Your task to perform on an android device: turn on sleep mode Image 0: 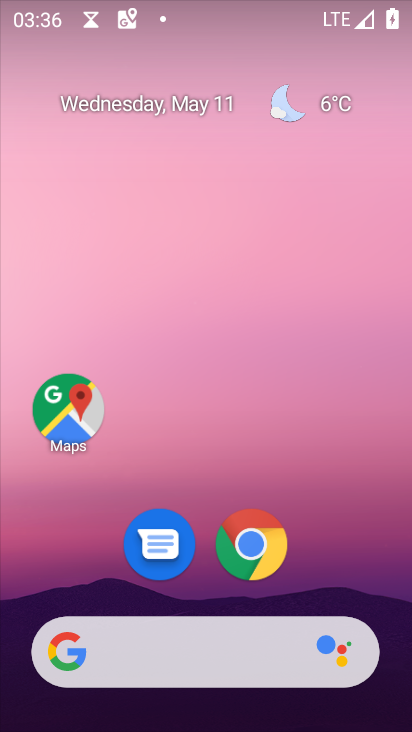
Step 0: drag from (330, 550) to (302, 64)
Your task to perform on an android device: turn on sleep mode Image 1: 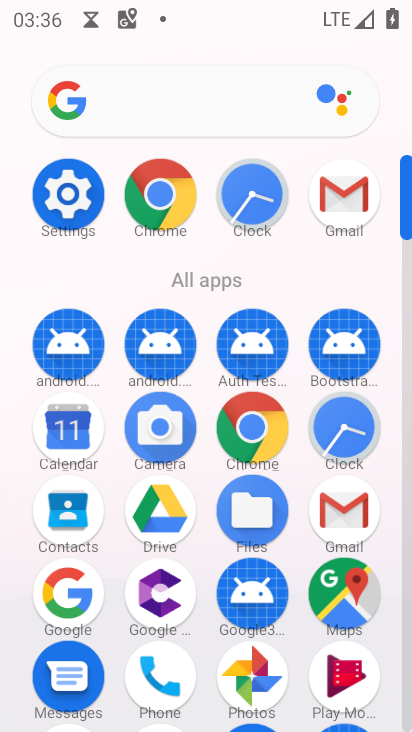
Step 1: click (72, 198)
Your task to perform on an android device: turn on sleep mode Image 2: 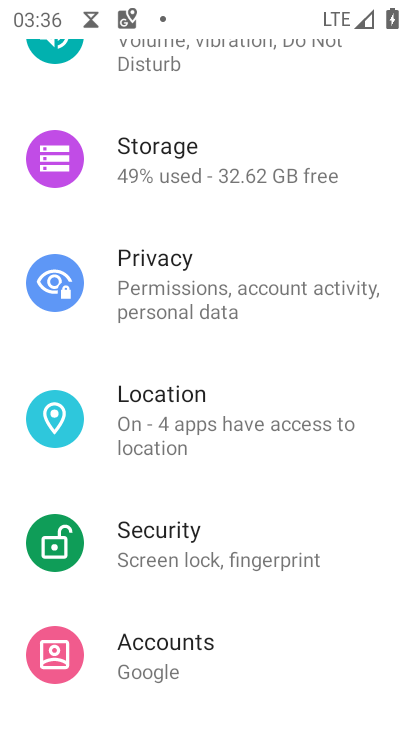
Step 2: task complete